Your task to perform on an android device: delete a single message in the gmail app Image 0: 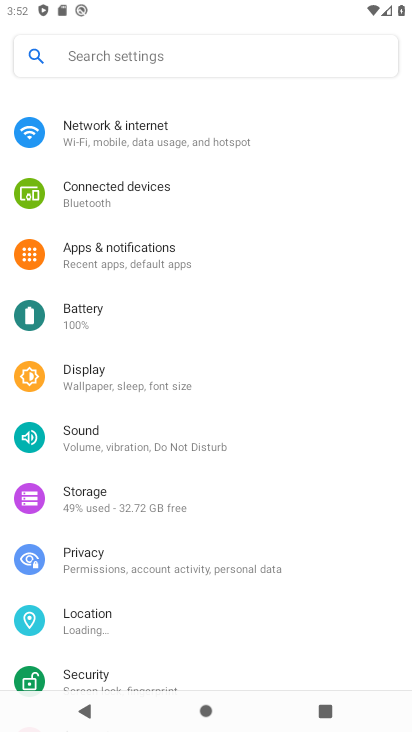
Step 0: press home button
Your task to perform on an android device: delete a single message in the gmail app Image 1: 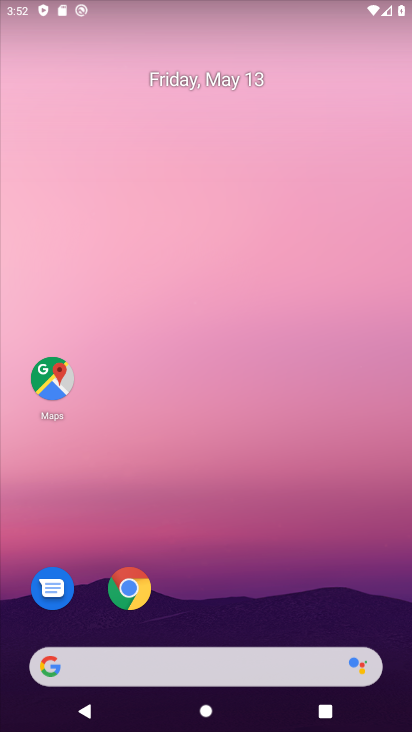
Step 1: drag from (302, 597) to (356, 176)
Your task to perform on an android device: delete a single message in the gmail app Image 2: 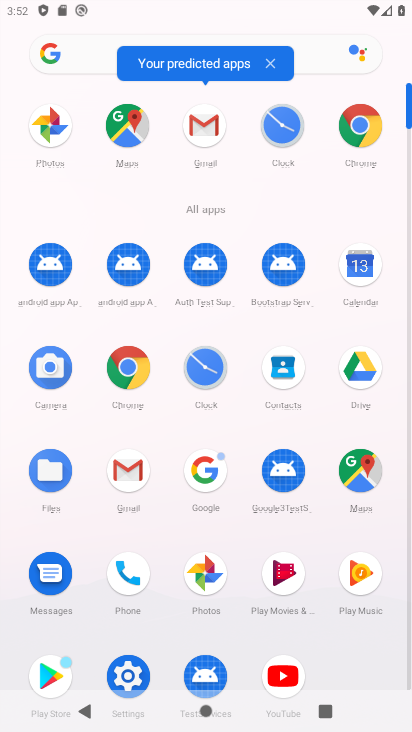
Step 2: click (114, 490)
Your task to perform on an android device: delete a single message in the gmail app Image 3: 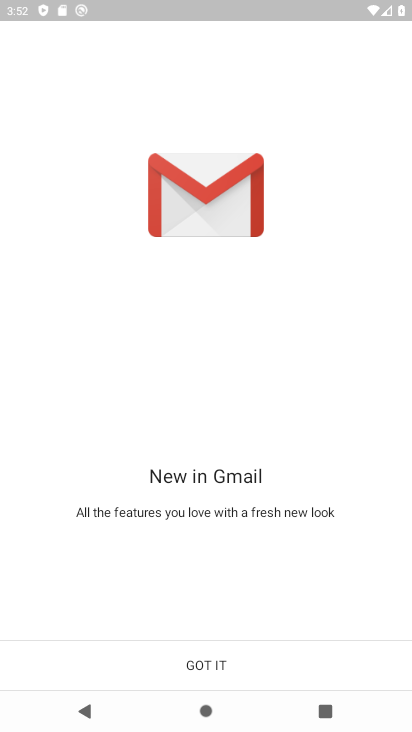
Step 3: click (201, 664)
Your task to perform on an android device: delete a single message in the gmail app Image 4: 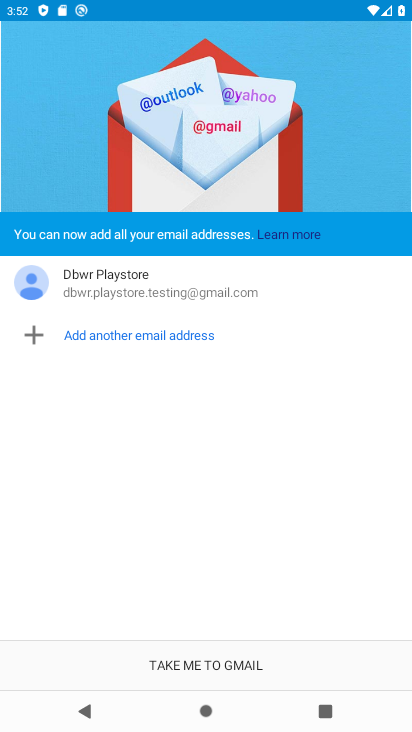
Step 4: click (225, 667)
Your task to perform on an android device: delete a single message in the gmail app Image 5: 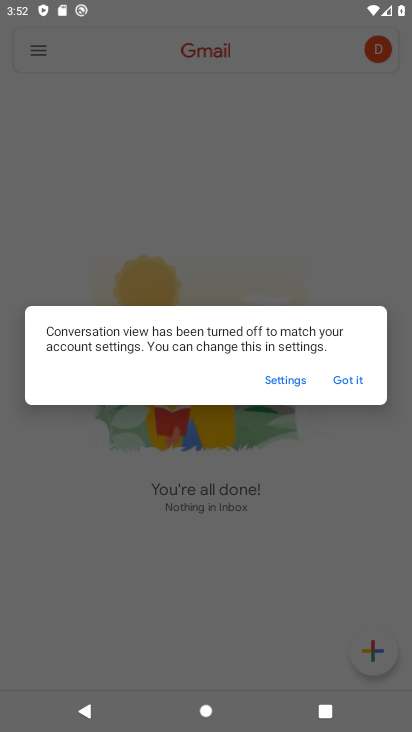
Step 5: click (360, 383)
Your task to perform on an android device: delete a single message in the gmail app Image 6: 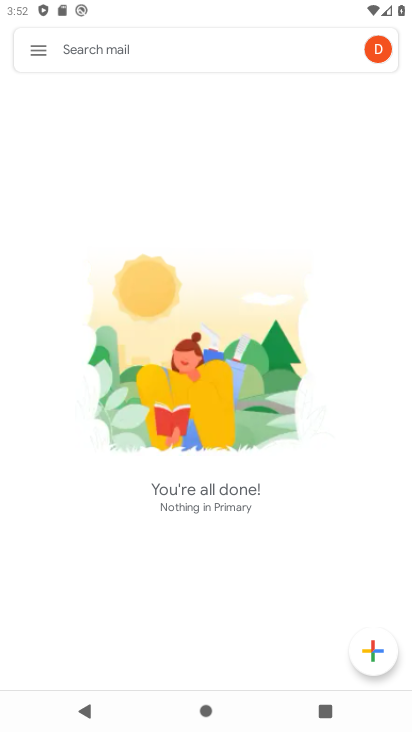
Step 6: task complete